Your task to perform on an android device: Open eBay Image 0: 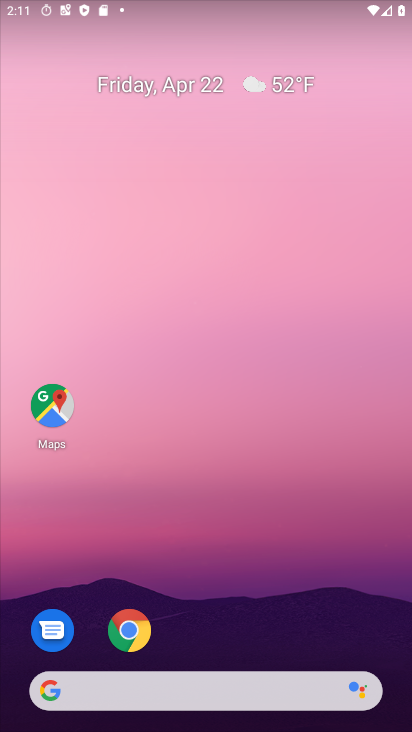
Step 0: click (355, 104)
Your task to perform on an android device: Open eBay Image 1: 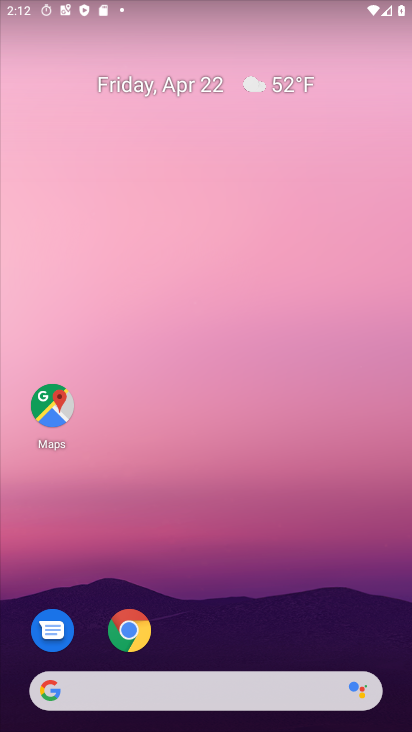
Step 1: click (123, 631)
Your task to perform on an android device: Open eBay Image 2: 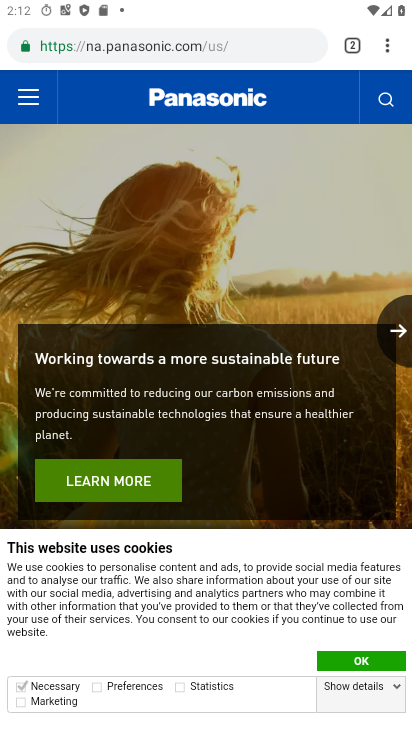
Step 2: click (267, 49)
Your task to perform on an android device: Open eBay Image 3: 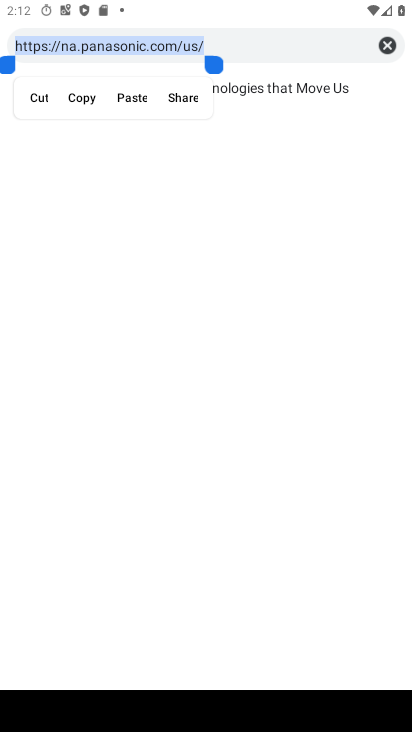
Step 3: click (392, 44)
Your task to perform on an android device: Open eBay Image 4: 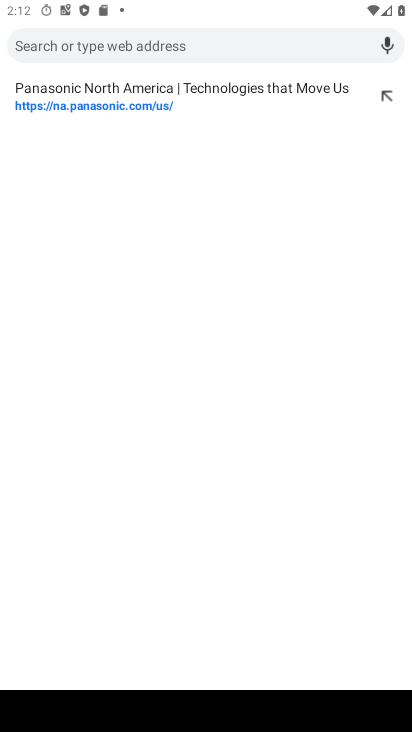
Step 4: type "eBay"
Your task to perform on an android device: Open eBay Image 5: 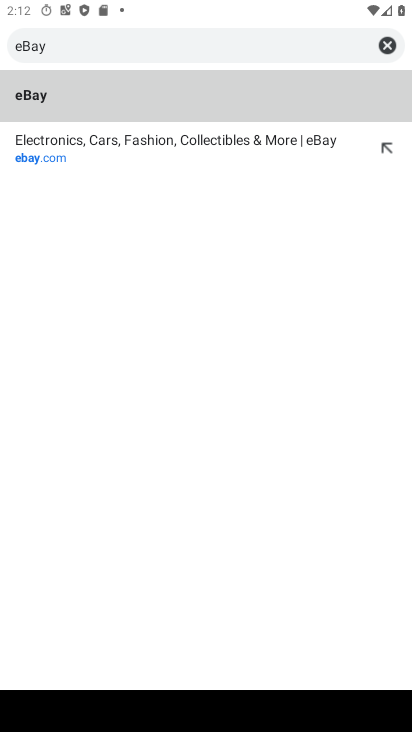
Step 5: click (12, 97)
Your task to perform on an android device: Open eBay Image 6: 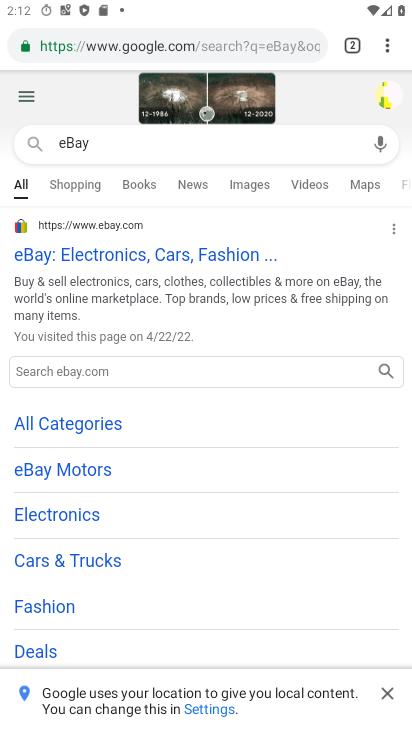
Step 6: task complete